Your task to perform on an android device: Open the web browser Image 0: 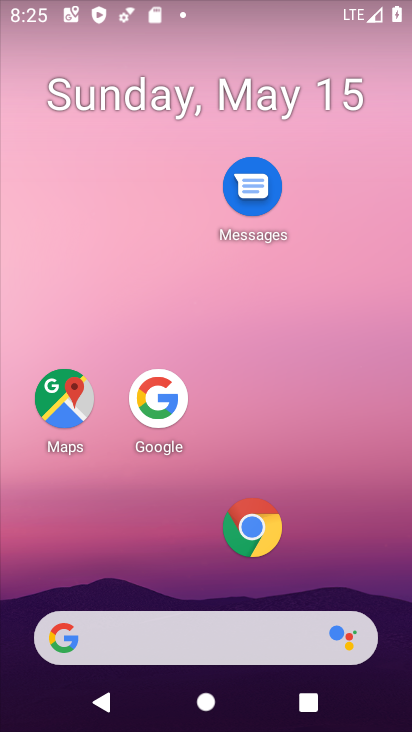
Step 0: click (265, 538)
Your task to perform on an android device: Open the web browser Image 1: 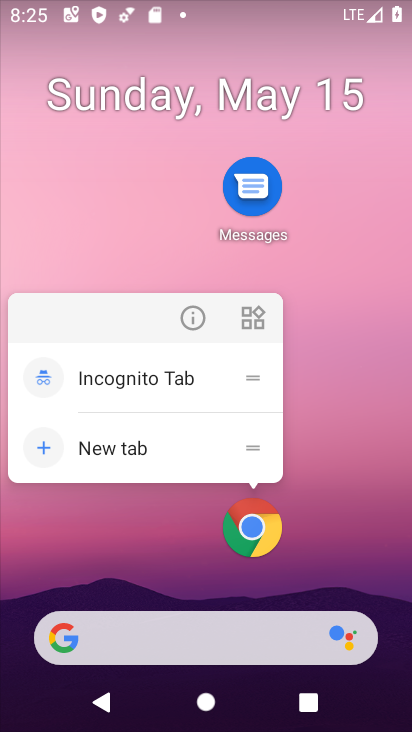
Step 1: click (259, 536)
Your task to perform on an android device: Open the web browser Image 2: 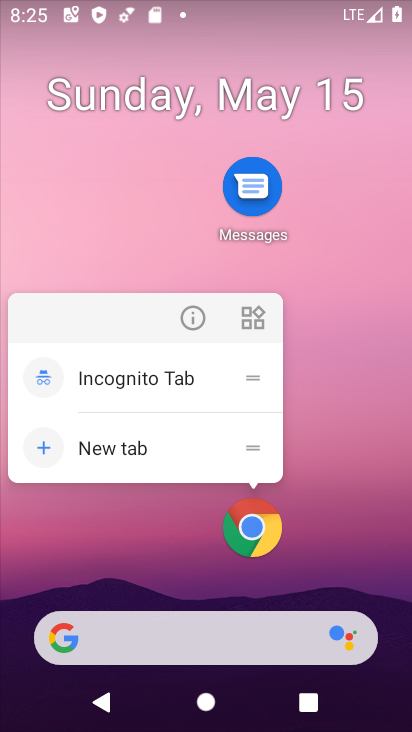
Step 2: click (266, 527)
Your task to perform on an android device: Open the web browser Image 3: 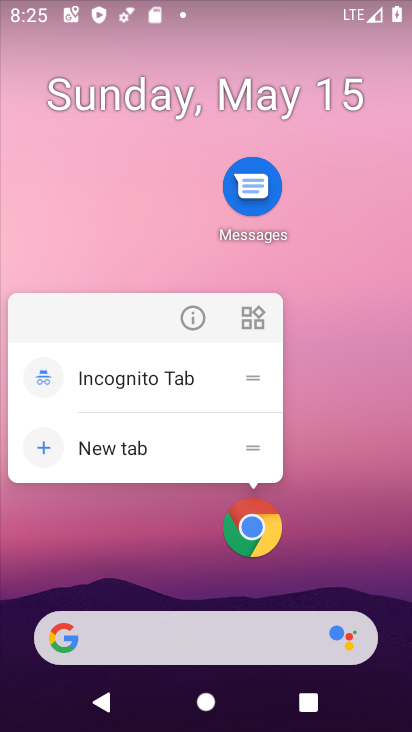
Step 3: click (261, 531)
Your task to perform on an android device: Open the web browser Image 4: 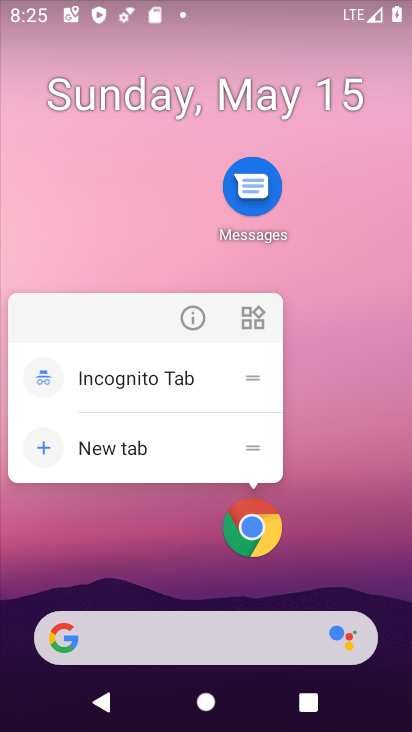
Step 4: click (255, 536)
Your task to perform on an android device: Open the web browser Image 5: 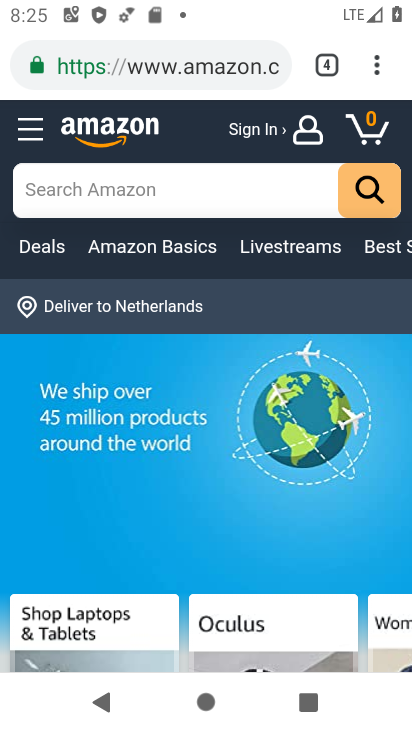
Step 5: task complete